Your task to perform on an android device: open a bookmark in the chrome app Image 0: 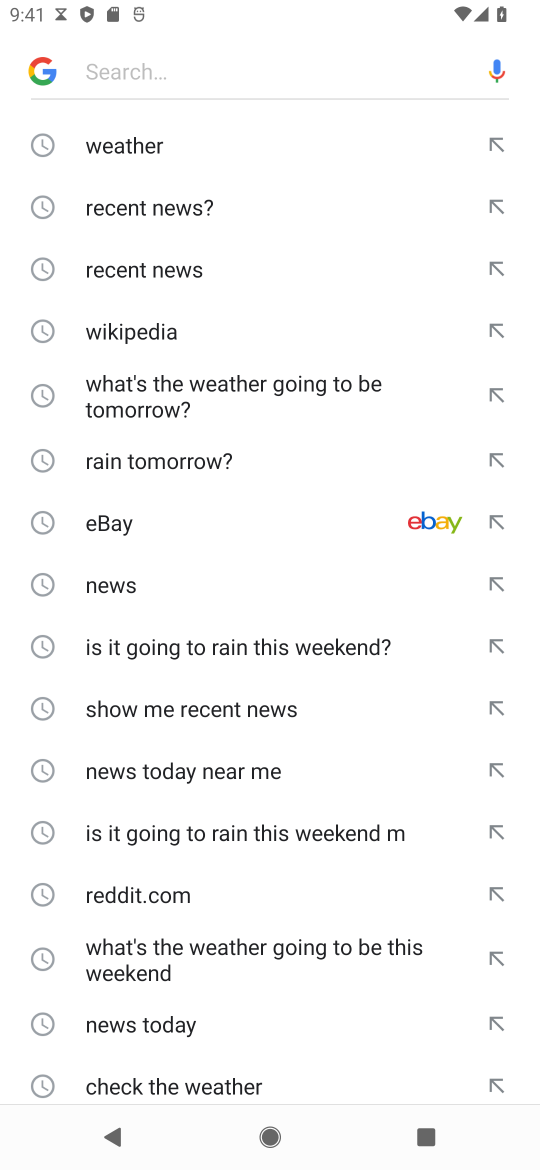
Step 0: press home button
Your task to perform on an android device: open a bookmark in the chrome app Image 1: 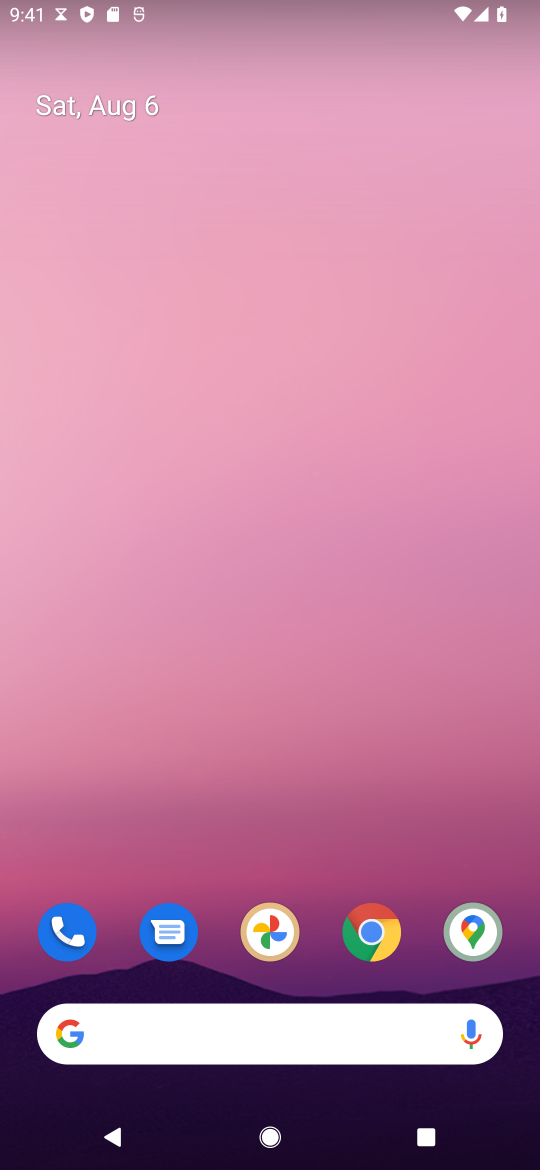
Step 1: click (372, 934)
Your task to perform on an android device: open a bookmark in the chrome app Image 2: 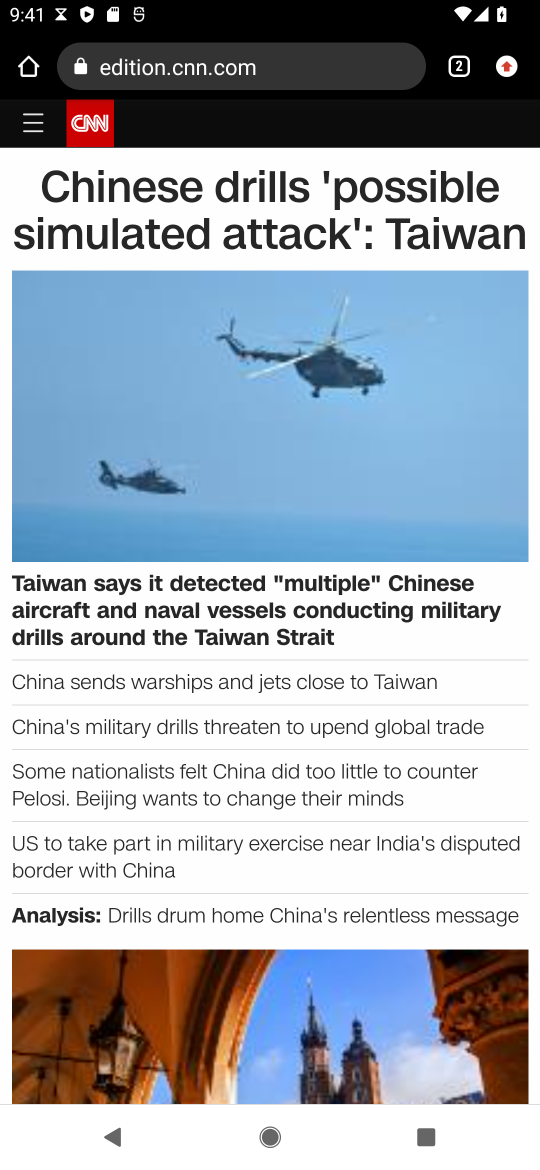
Step 2: click (505, 70)
Your task to perform on an android device: open a bookmark in the chrome app Image 3: 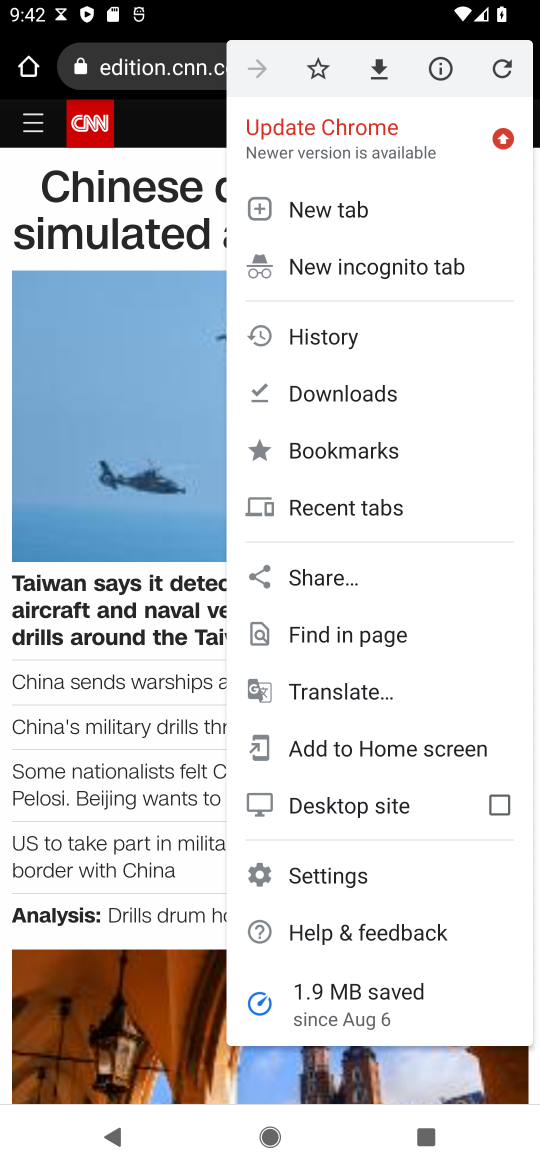
Step 3: click (362, 460)
Your task to perform on an android device: open a bookmark in the chrome app Image 4: 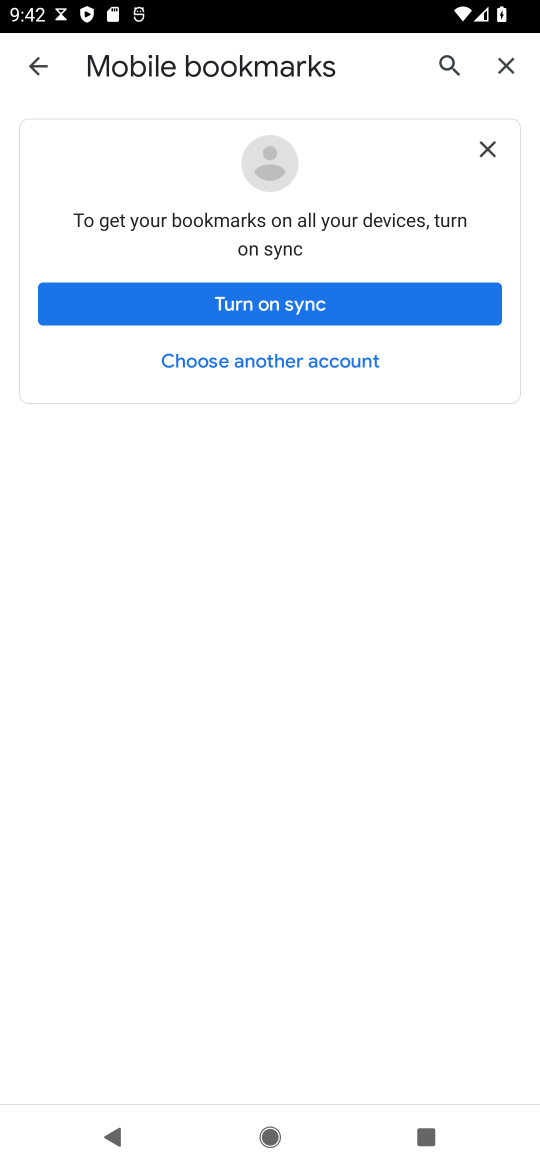
Step 4: task complete